Your task to perform on an android device: Open the Play Movies app and select the watchlist tab. Image 0: 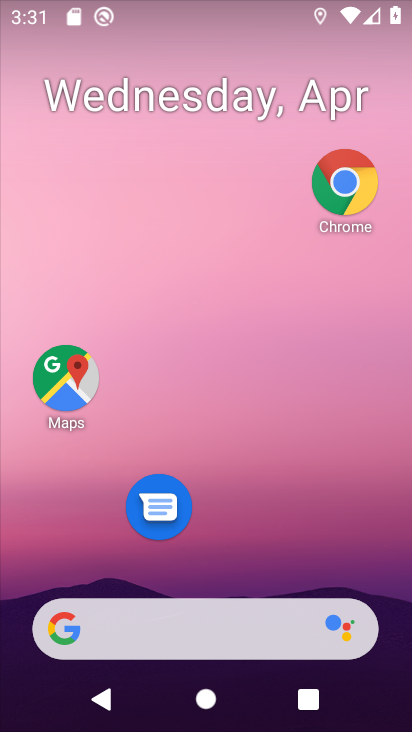
Step 0: drag from (235, 515) to (262, 1)
Your task to perform on an android device: Open the Play Movies app and select the watchlist tab. Image 1: 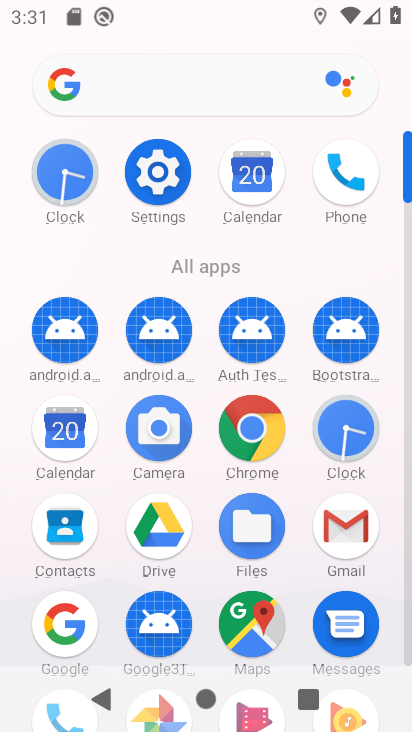
Step 1: drag from (303, 542) to (320, 199)
Your task to perform on an android device: Open the Play Movies app and select the watchlist tab. Image 2: 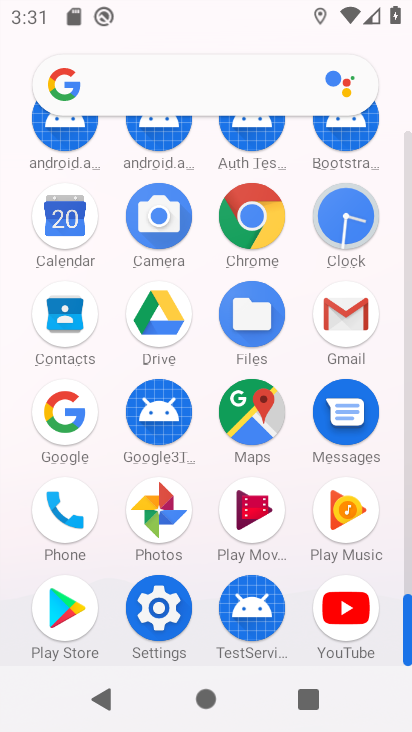
Step 2: click (257, 521)
Your task to perform on an android device: Open the Play Movies app and select the watchlist tab. Image 3: 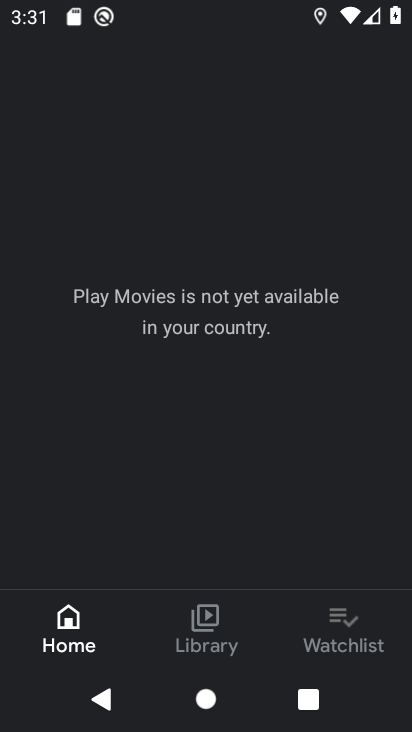
Step 3: click (327, 631)
Your task to perform on an android device: Open the Play Movies app and select the watchlist tab. Image 4: 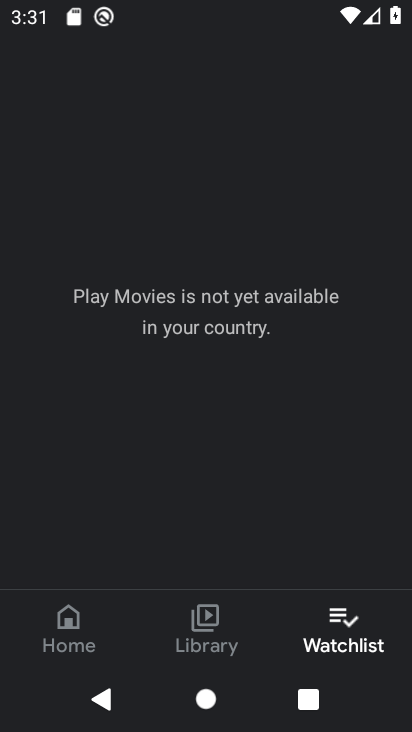
Step 4: task complete